Your task to perform on an android device: check storage Image 0: 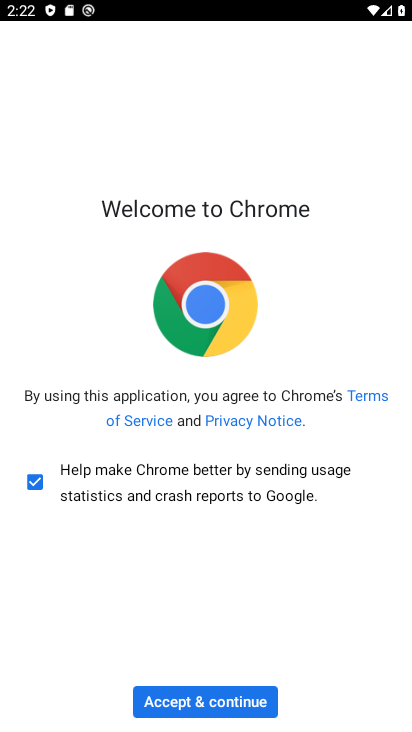
Step 0: press home button
Your task to perform on an android device: check storage Image 1: 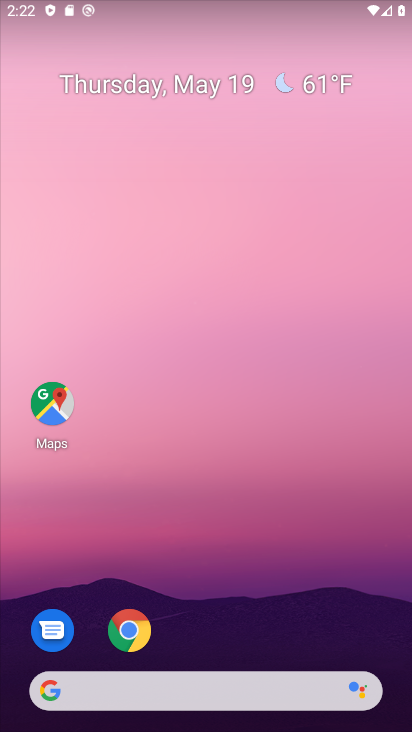
Step 1: drag from (341, 570) to (243, 70)
Your task to perform on an android device: check storage Image 2: 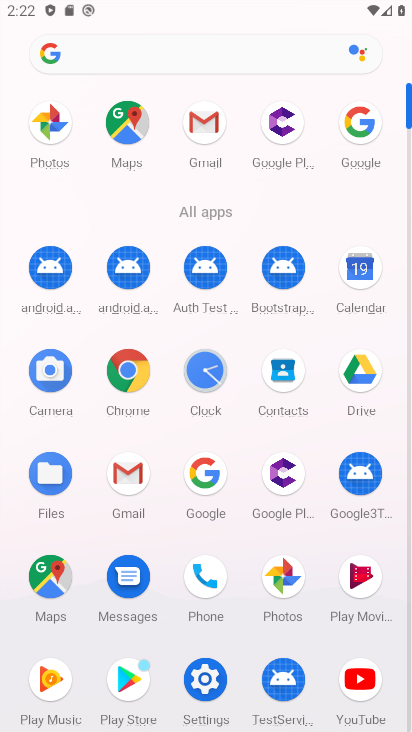
Step 2: click (202, 684)
Your task to perform on an android device: check storage Image 3: 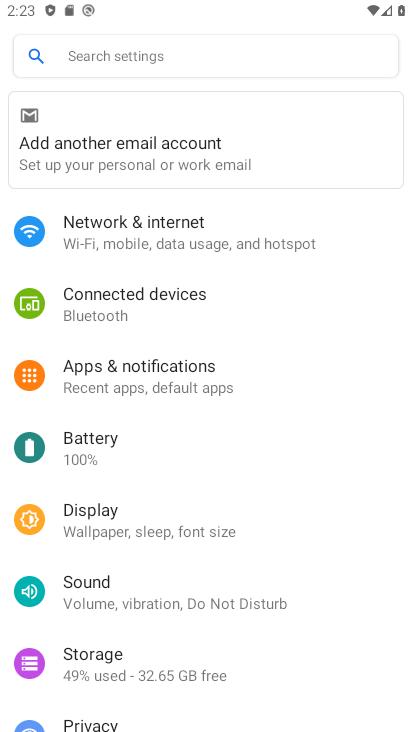
Step 3: click (223, 642)
Your task to perform on an android device: check storage Image 4: 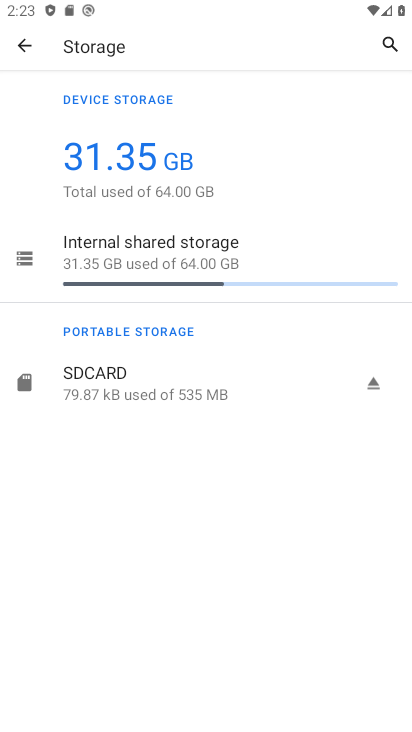
Step 4: task complete